Your task to perform on an android device: Turn off the flashlight Image 0: 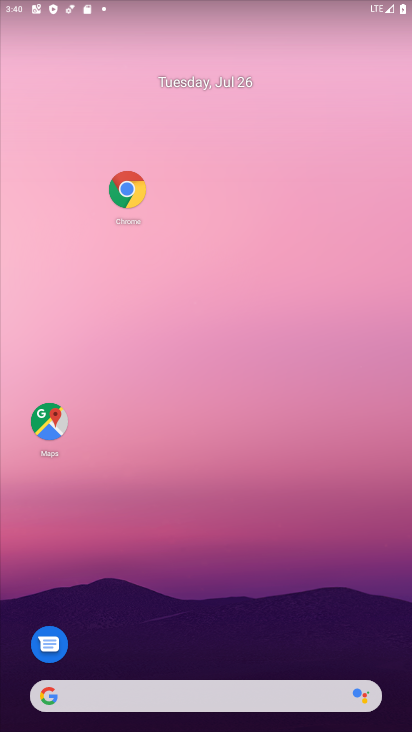
Step 0: drag from (160, 689) to (159, 305)
Your task to perform on an android device: Turn off the flashlight Image 1: 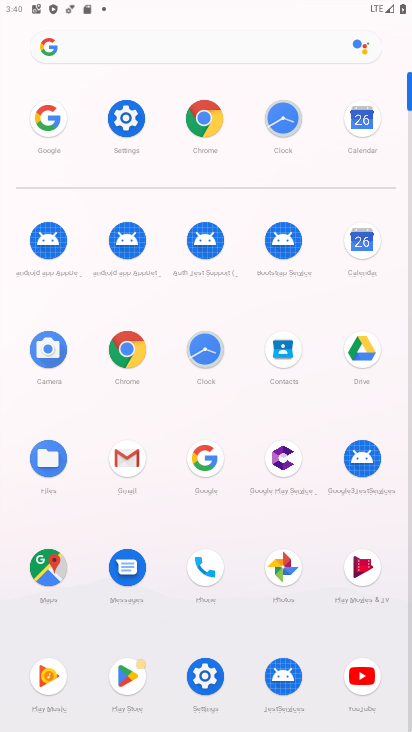
Step 1: drag from (265, 29) to (273, 555)
Your task to perform on an android device: Turn off the flashlight Image 2: 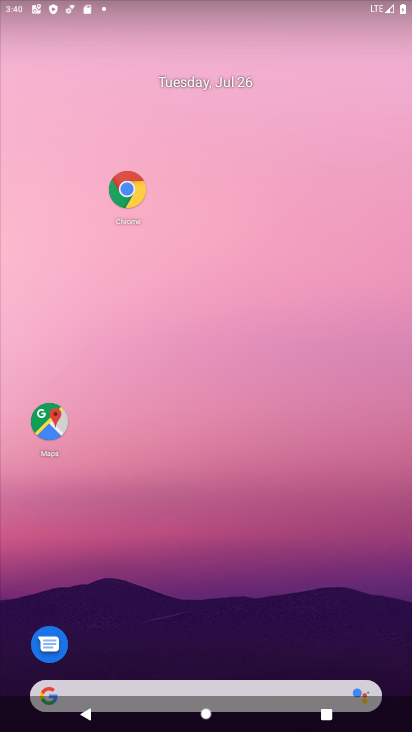
Step 2: drag from (194, 0) to (192, 416)
Your task to perform on an android device: Turn off the flashlight Image 3: 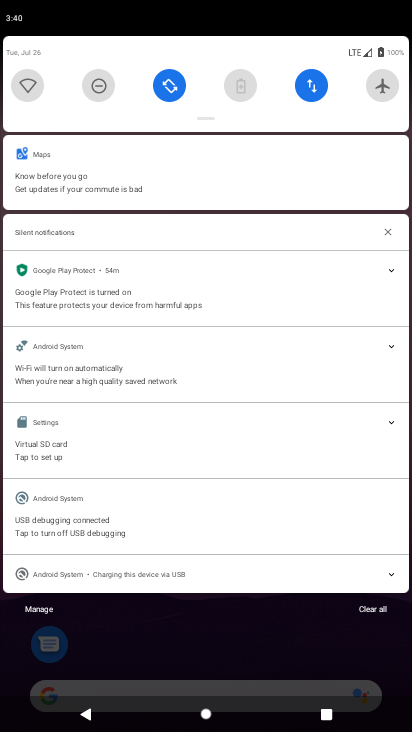
Step 3: drag from (183, 68) to (201, 589)
Your task to perform on an android device: Turn off the flashlight Image 4: 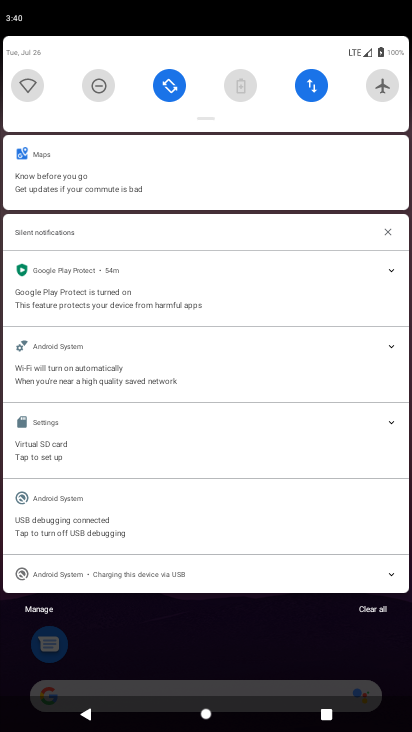
Step 4: drag from (147, 82) to (211, 504)
Your task to perform on an android device: Turn off the flashlight Image 5: 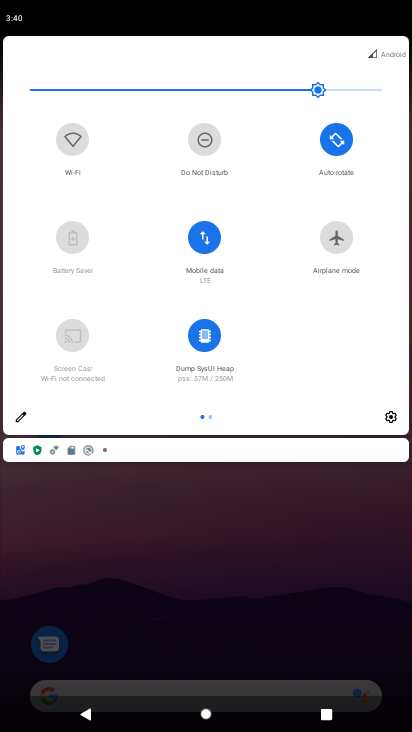
Step 5: click (9, 416)
Your task to perform on an android device: Turn off the flashlight Image 6: 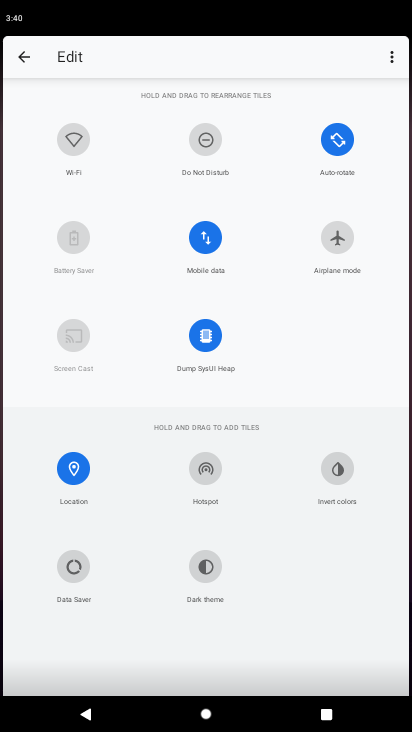
Step 6: task complete